Your task to perform on an android device: search for starred emails in the gmail app Image 0: 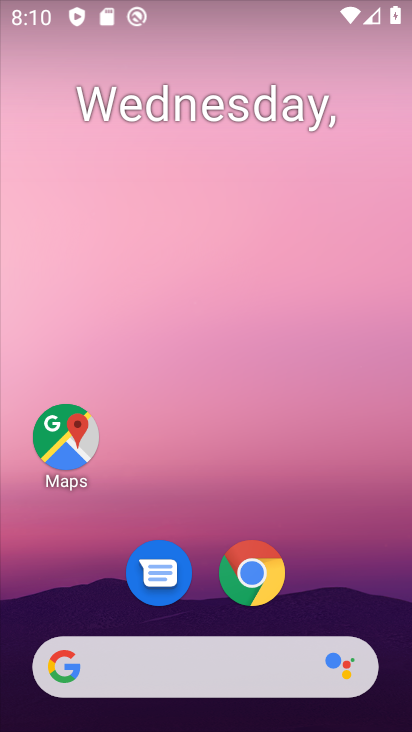
Step 0: drag from (236, 451) to (228, 95)
Your task to perform on an android device: search for starred emails in the gmail app Image 1: 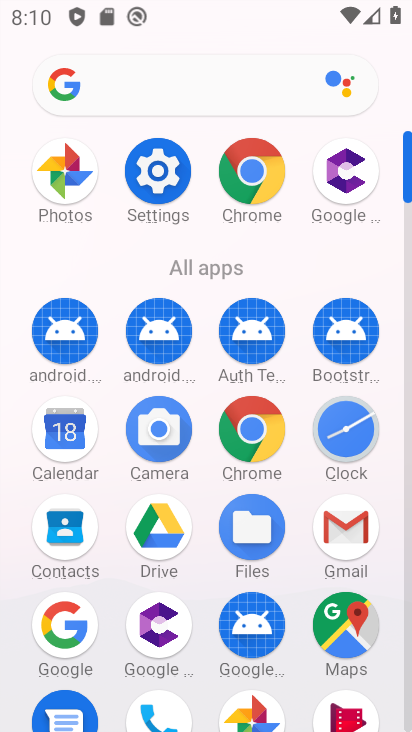
Step 1: click (362, 550)
Your task to perform on an android device: search for starred emails in the gmail app Image 2: 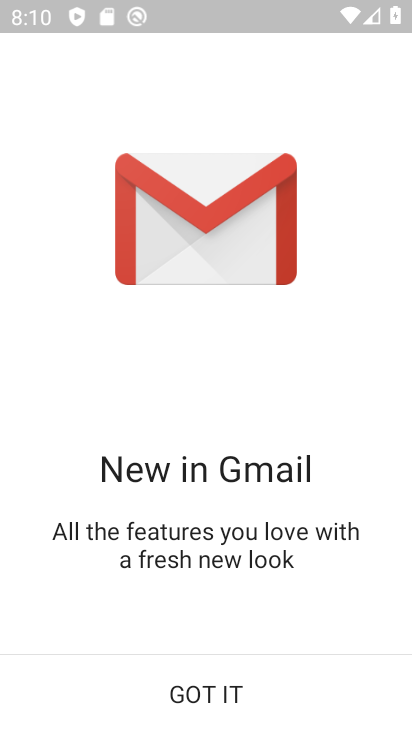
Step 2: click (239, 694)
Your task to perform on an android device: search for starred emails in the gmail app Image 3: 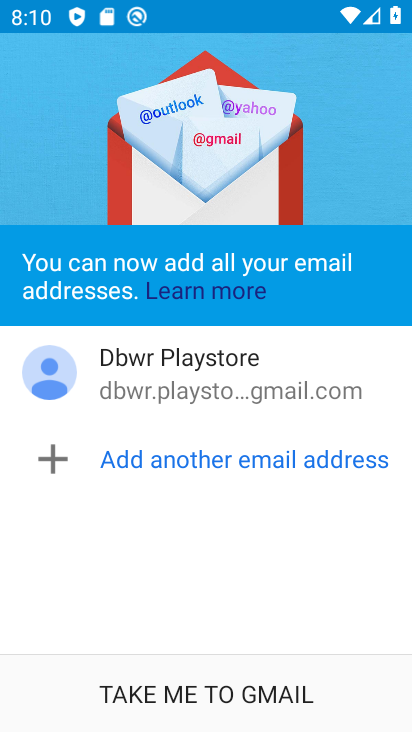
Step 3: click (233, 697)
Your task to perform on an android device: search for starred emails in the gmail app Image 4: 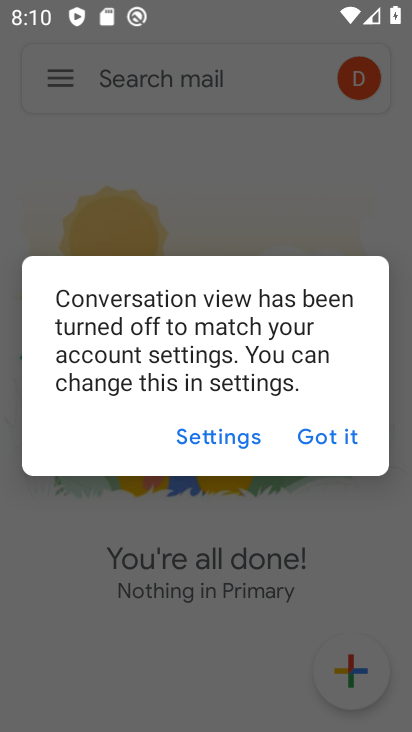
Step 4: click (336, 447)
Your task to perform on an android device: search for starred emails in the gmail app Image 5: 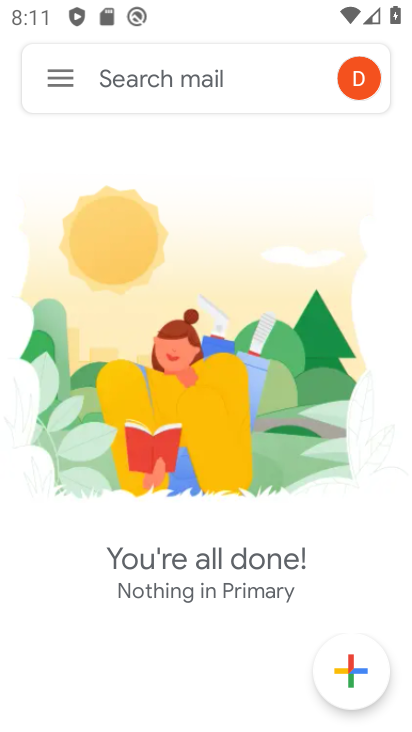
Step 5: click (69, 83)
Your task to perform on an android device: search for starred emails in the gmail app Image 6: 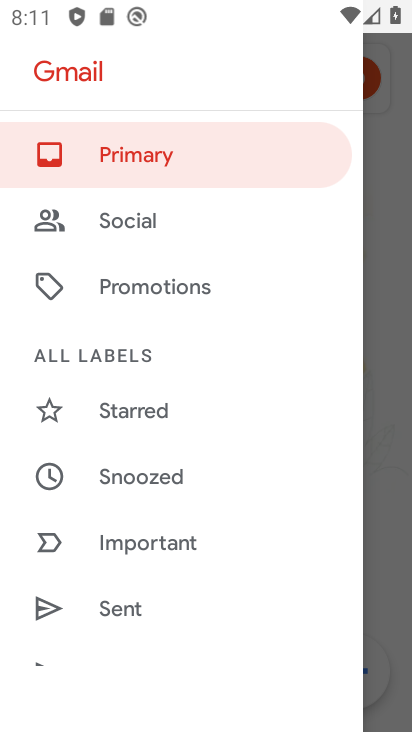
Step 6: click (151, 429)
Your task to perform on an android device: search for starred emails in the gmail app Image 7: 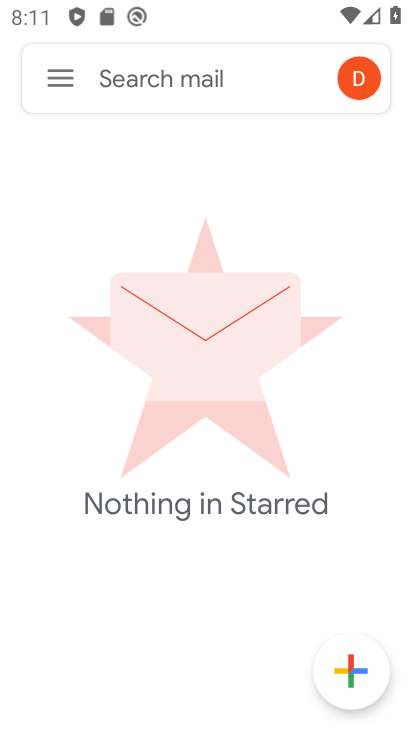
Step 7: task complete